Your task to perform on an android device: Open calendar and show me the first week of next month Image 0: 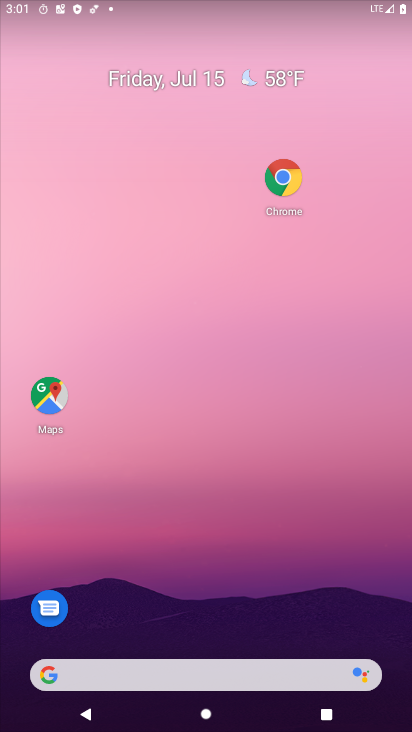
Step 0: press home button
Your task to perform on an android device: Open calendar and show me the first week of next month Image 1: 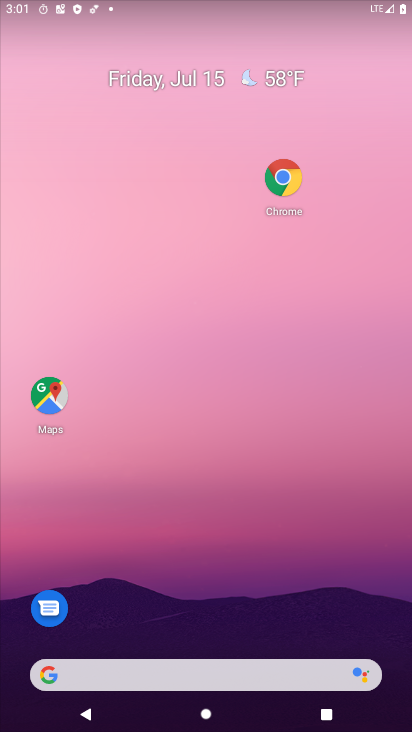
Step 1: drag from (228, 654) to (217, 1)
Your task to perform on an android device: Open calendar and show me the first week of next month Image 2: 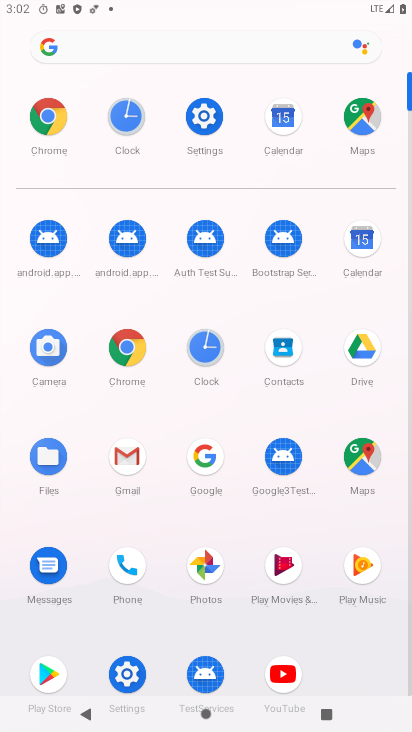
Step 2: click (347, 230)
Your task to perform on an android device: Open calendar and show me the first week of next month Image 3: 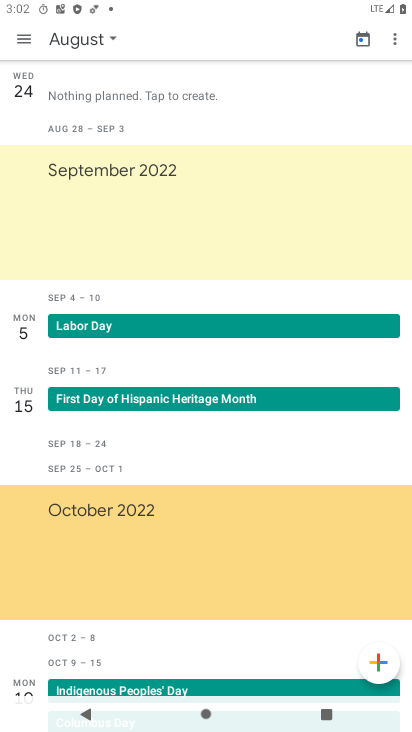
Step 3: click (104, 39)
Your task to perform on an android device: Open calendar and show me the first week of next month Image 4: 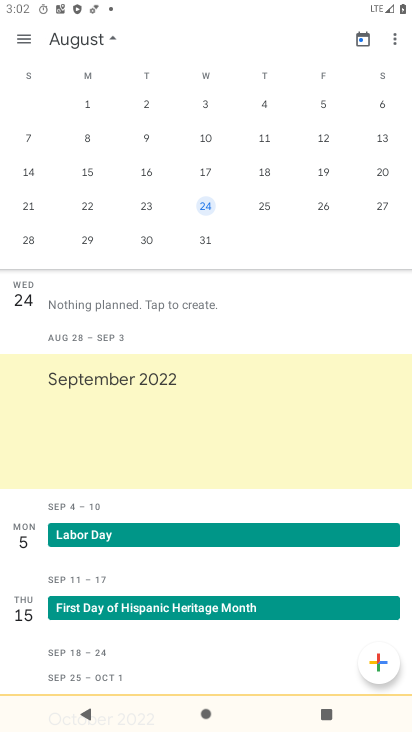
Step 4: click (96, 103)
Your task to perform on an android device: Open calendar and show me the first week of next month Image 5: 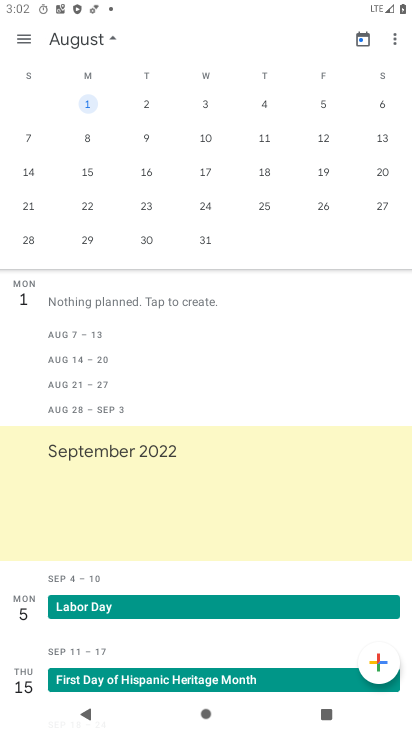
Step 5: task complete